Your task to perform on an android device: Open the phone app and click the voicemail tab. Image 0: 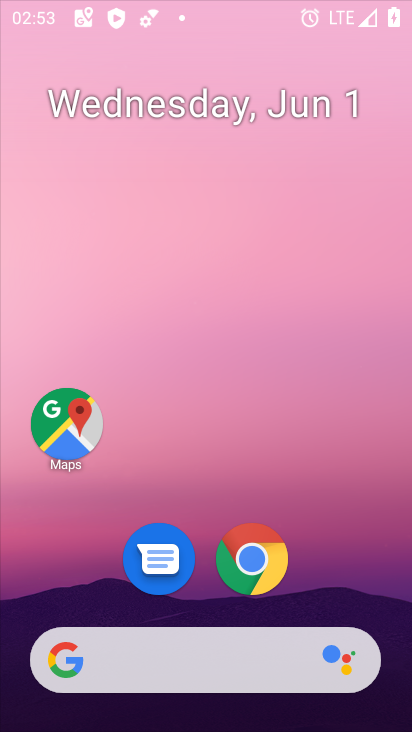
Step 0: press home button
Your task to perform on an android device: Open the phone app and click the voicemail tab. Image 1: 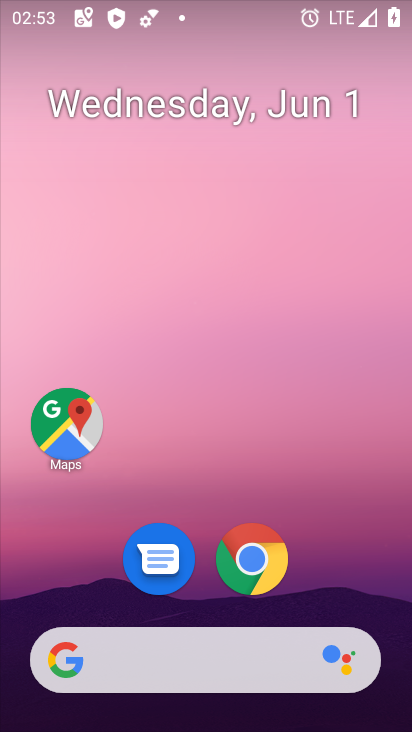
Step 1: drag from (313, 602) to (332, 64)
Your task to perform on an android device: Open the phone app and click the voicemail tab. Image 2: 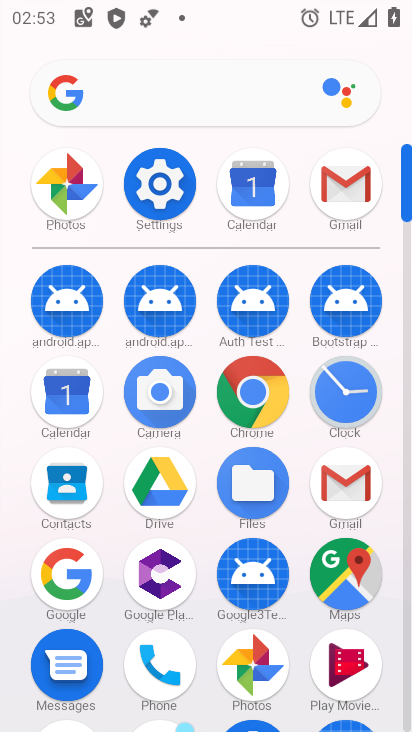
Step 2: click (156, 671)
Your task to perform on an android device: Open the phone app and click the voicemail tab. Image 3: 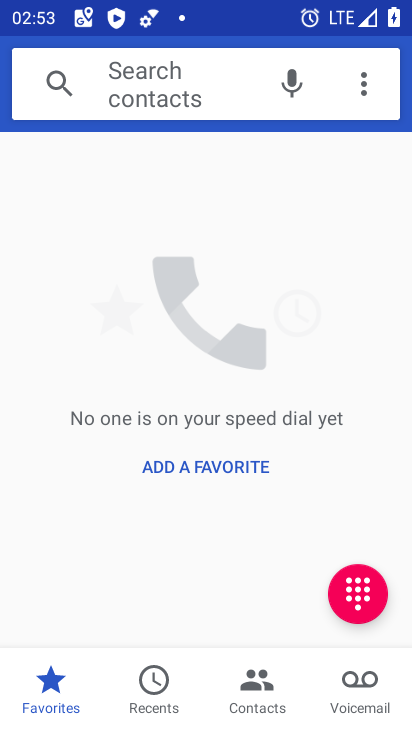
Step 3: click (353, 680)
Your task to perform on an android device: Open the phone app and click the voicemail tab. Image 4: 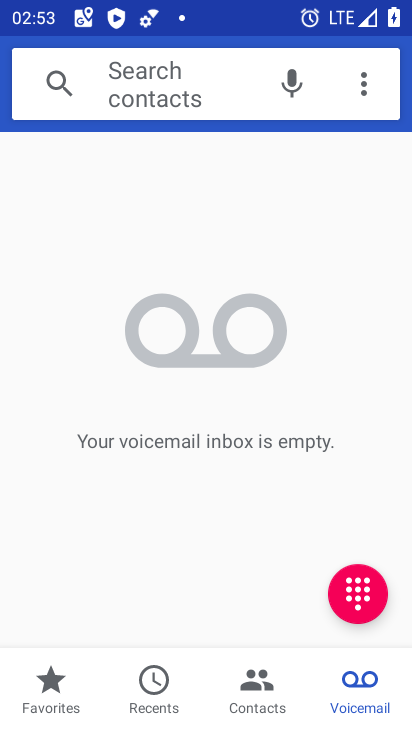
Step 4: task complete